Your task to perform on an android device: Open Google Image 0: 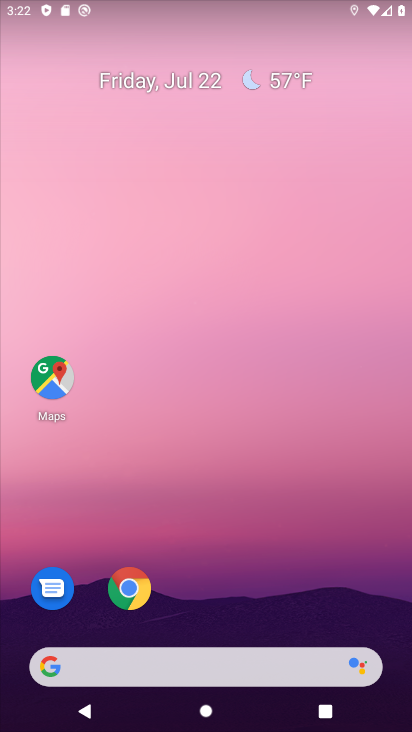
Step 0: drag from (183, 630) to (184, 3)
Your task to perform on an android device: Open Google Image 1: 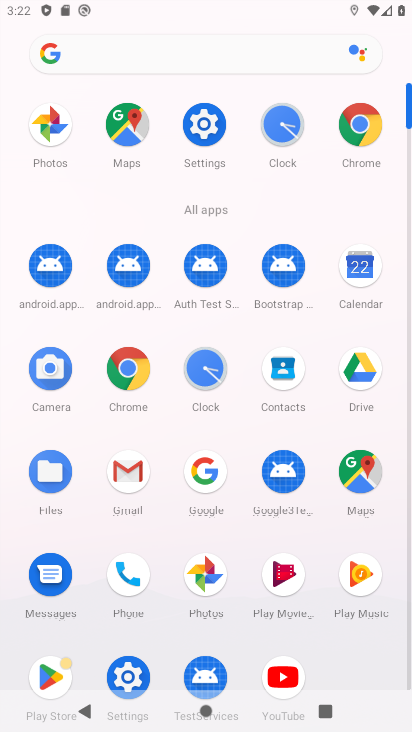
Step 1: click (188, 485)
Your task to perform on an android device: Open Google Image 2: 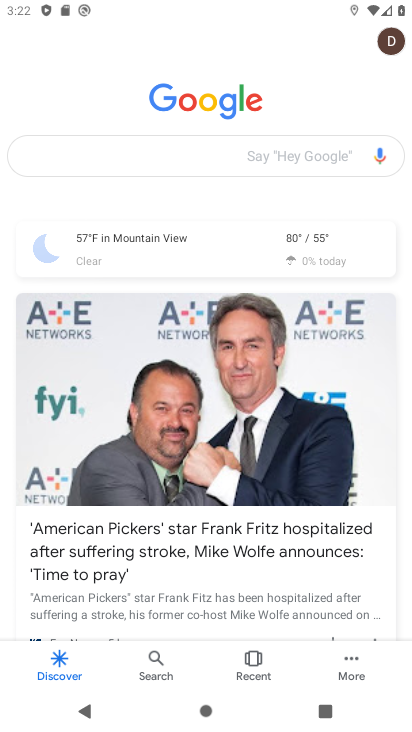
Step 2: task complete